Your task to perform on an android device: Search for the best books on Goodreads. Image 0: 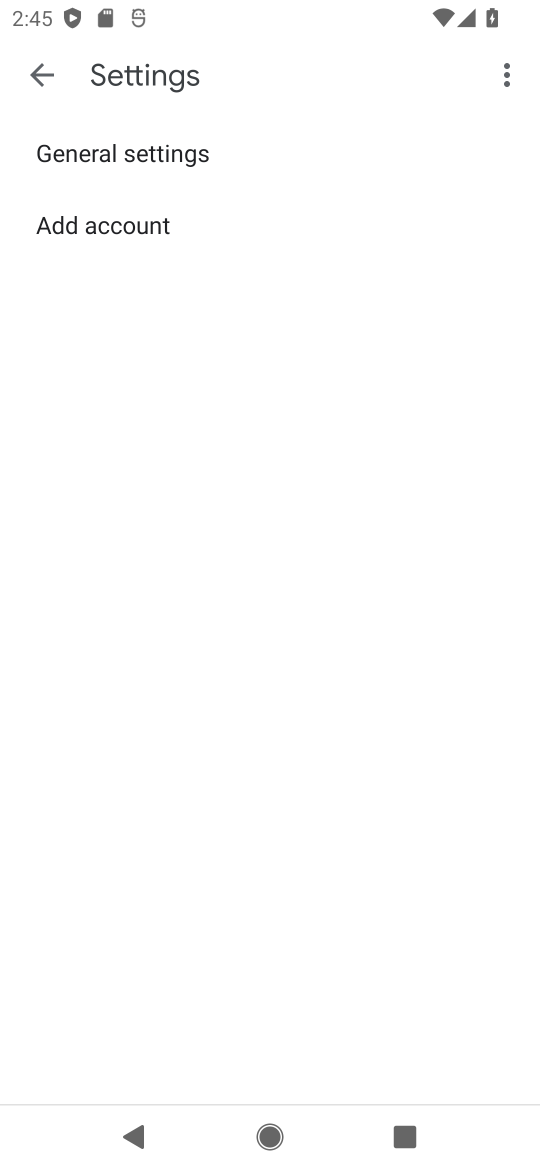
Step 0: press home button
Your task to perform on an android device: Search for the best books on Goodreads. Image 1: 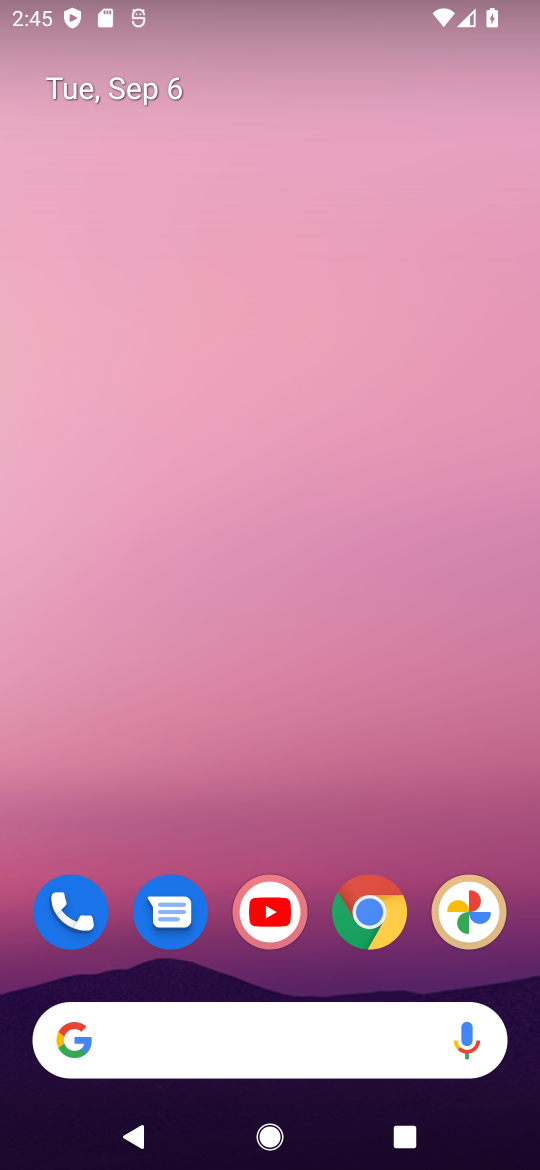
Step 1: click (378, 906)
Your task to perform on an android device: Search for the best books on Goodreads. Image 2: 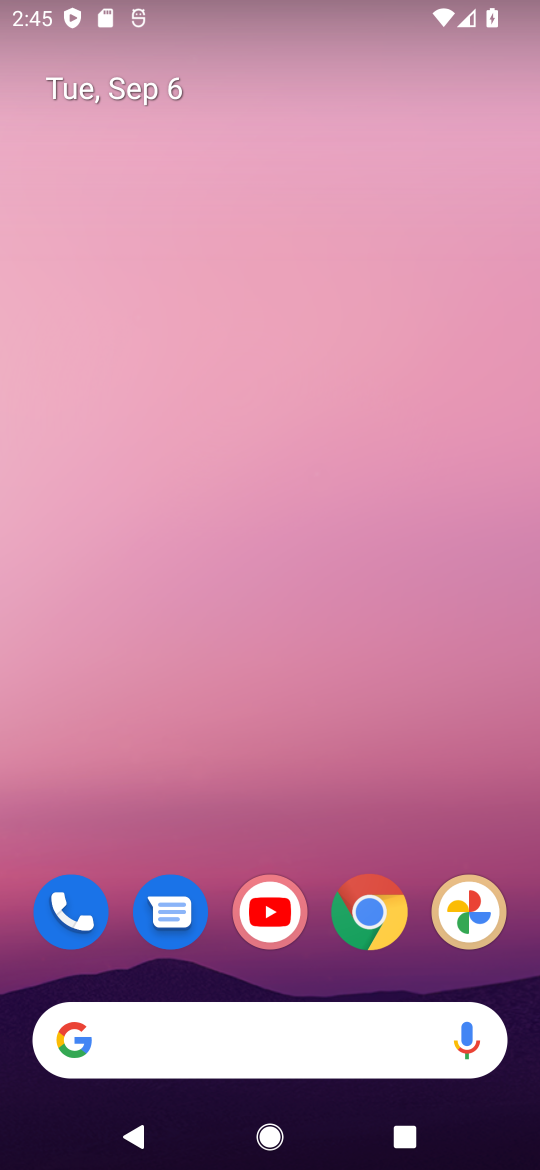
Step 2: click (189, 78)
Your task to perform on an android device: Search for the best books on Goodreads. Image 3: 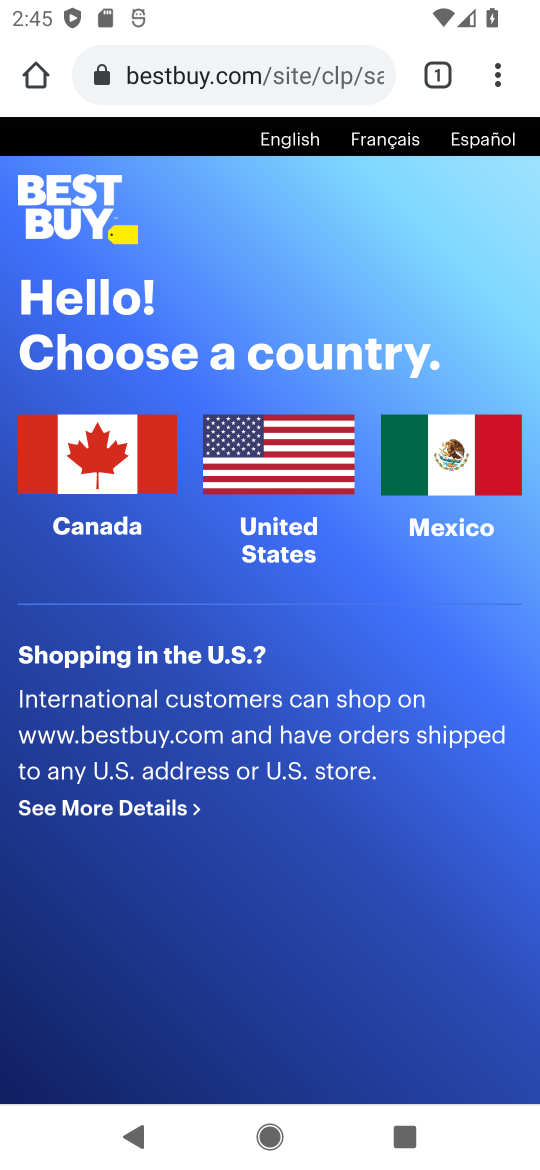
Step 3: click (206, 74)
Your task to perform on an android device: Search for the best books on Goodreads. Image 4: 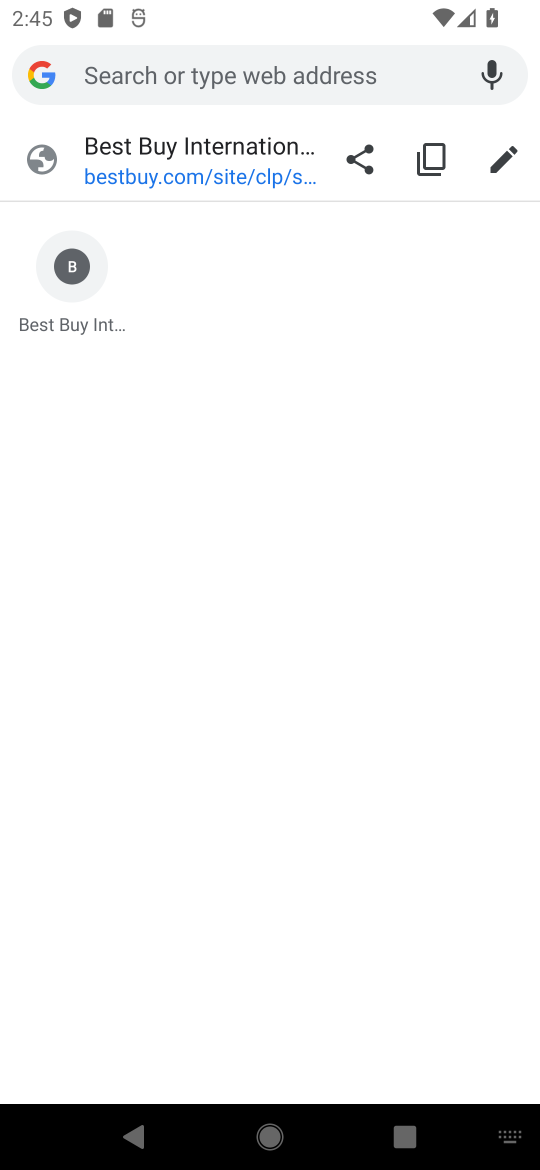
Step 4: type "Goodreads"
Your task to perform on an android device: Search for the best books on Goodreads. Image 5: 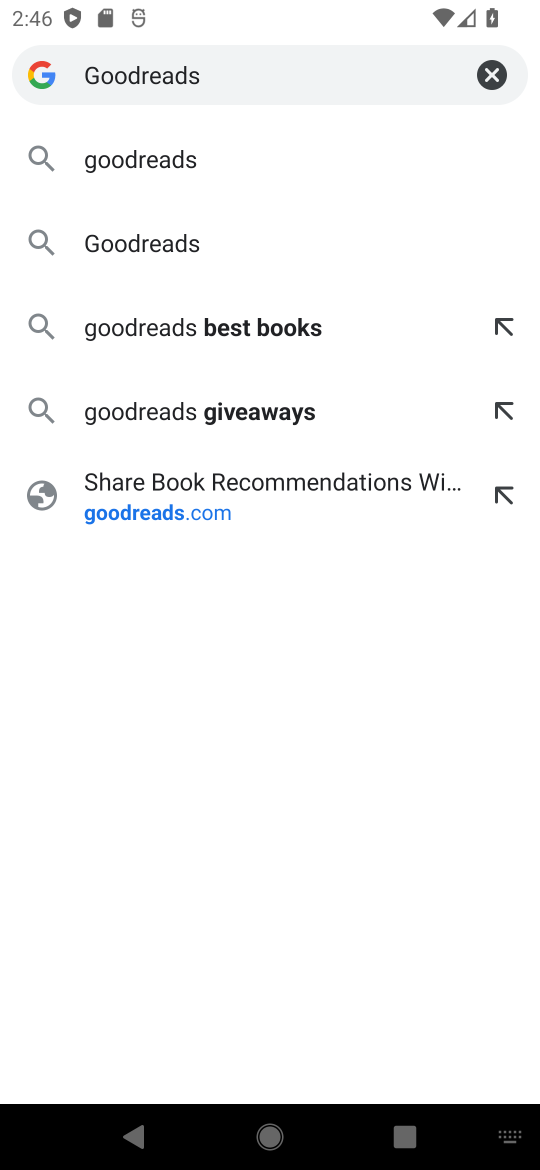
Step 5: click (166, 163)
Your task to perform on an android device: Search for the best books on Goodreads. Image 6: 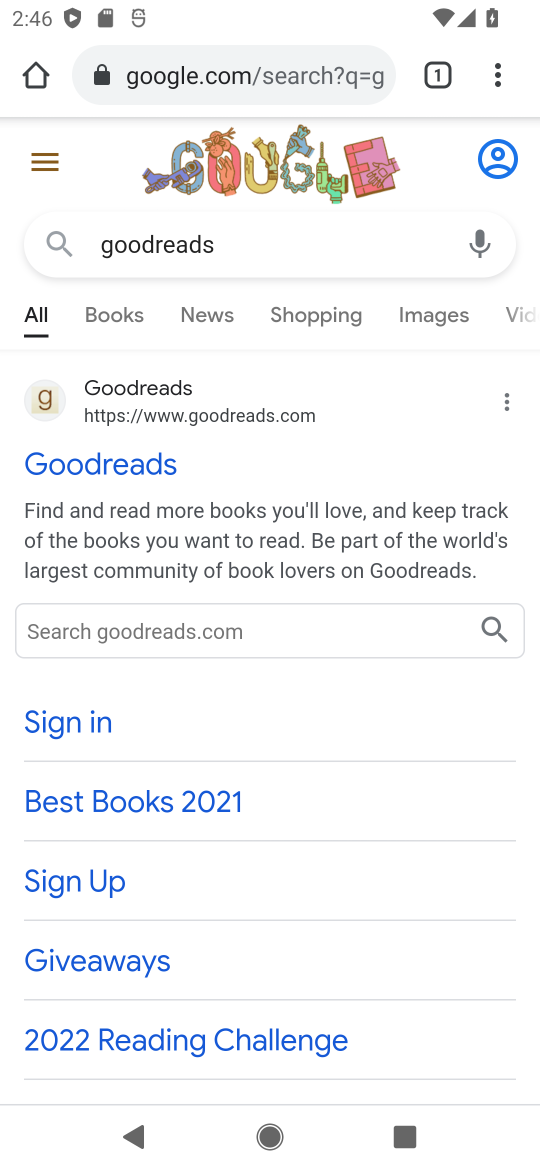
Step 6: click (127, 453)
Your task to perform on an android device: Search for the best books on Goodreads. Image 7: 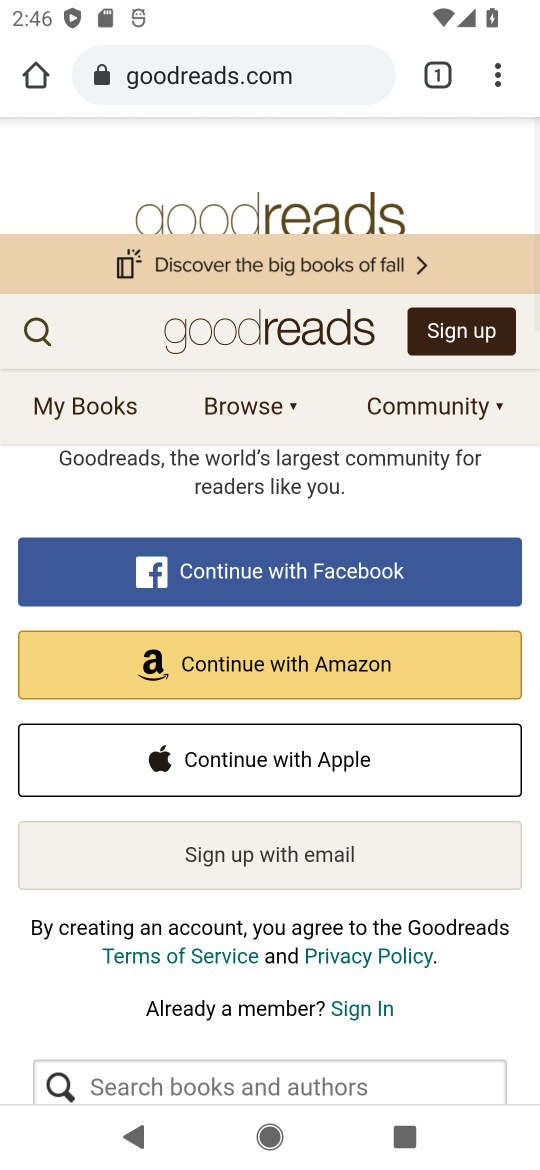
Step 7: drag from (394, 933) to (411, 159)
Your task to perform on an android device: Search for the best books on Goodreads. Image 8: 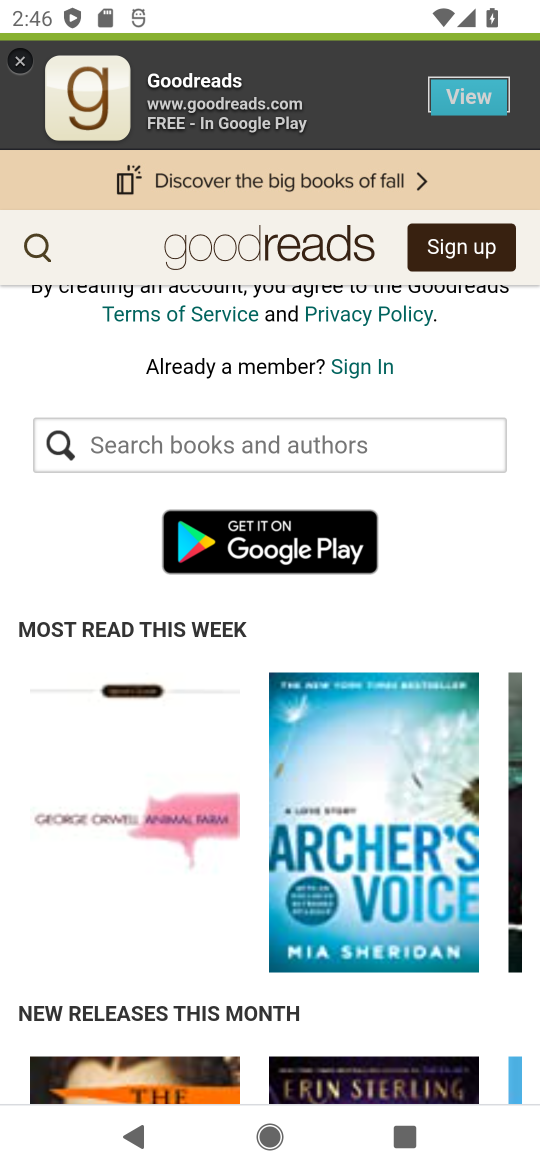
Step 8: click (208, 439)
Your task to perform on an android device: Search for the best books on Goodreads. Image 9: 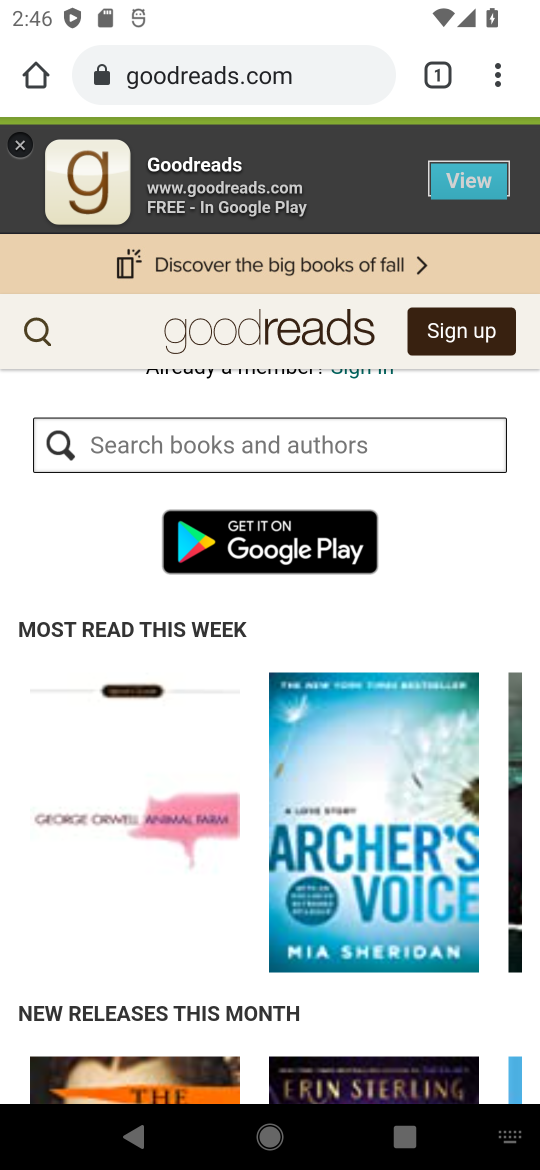
Step 9: type "best books"
Your task to perform on an android device: Search for the best books on Goodreads. Image 10: 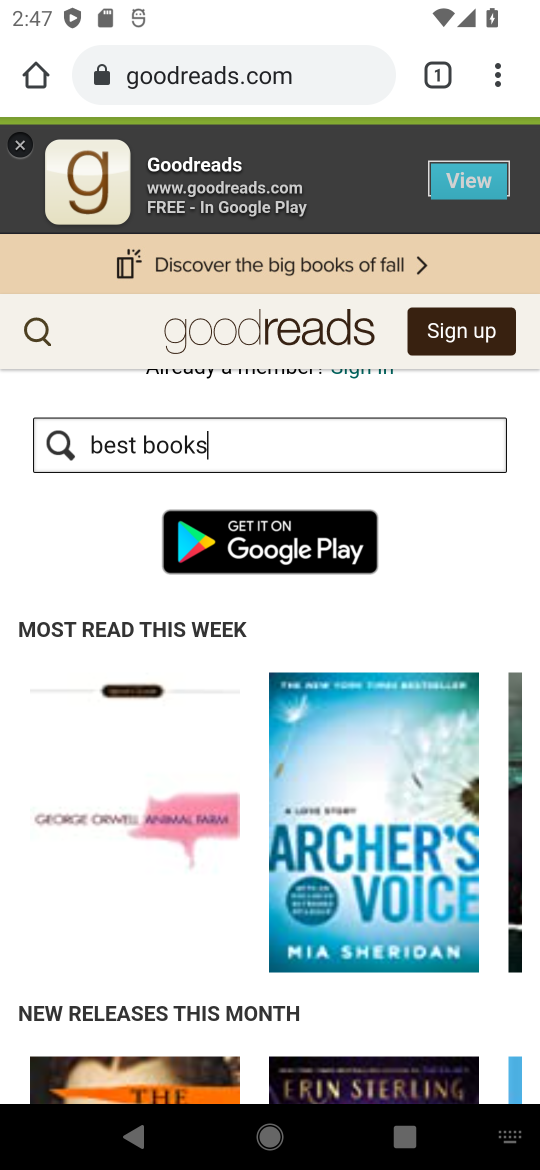
Step 10: task complete